Your task to perform on an android device: Go to ESPN.com Image 0: 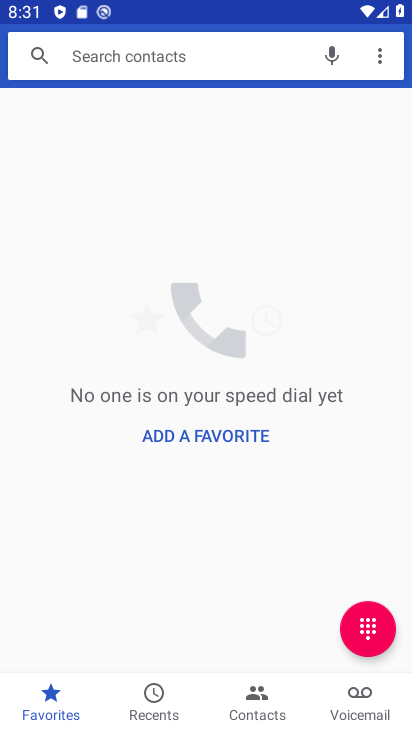
Step 0: press home button
Your task to perform on an android device: Go to ESPN.com Image 1: 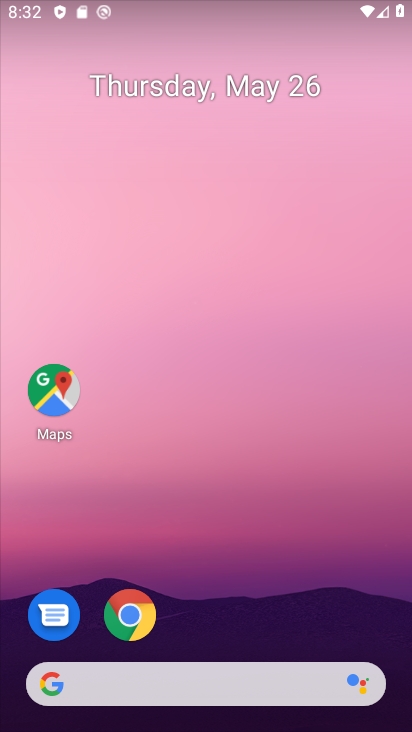
Step 1: click (123, 614)
Your task to perform on an android device: Go to ESPN.com Image 2: 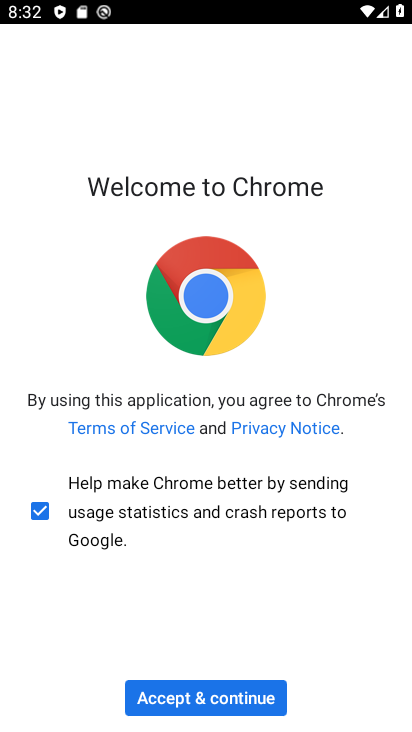
Step 2: click (241, 699)
Your task to perform on an android device: Go to ESPN.com Image 3: 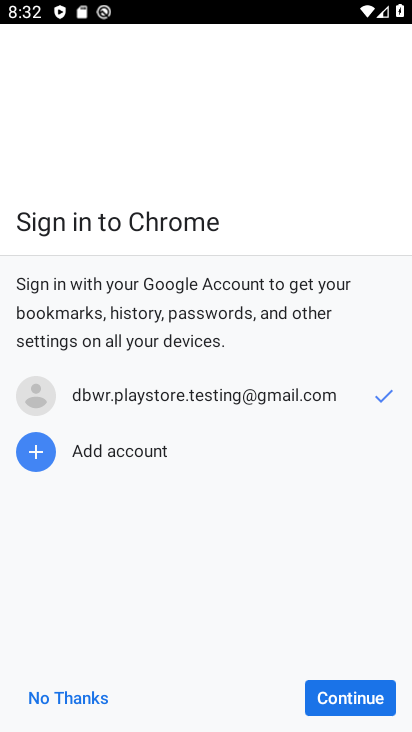
Step 3: click (359, 704)
Your task to perform on an android device: Go to ESPN.com Image 4: 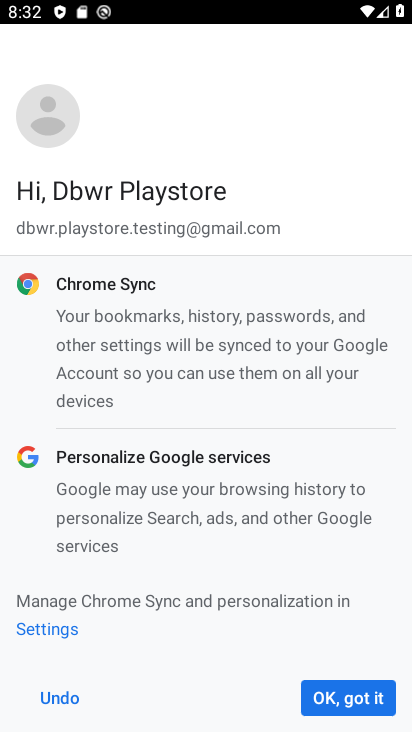
Step 4: click (357, 689)
Your task to perform on an android device: Go to ESPN.com Image 5: 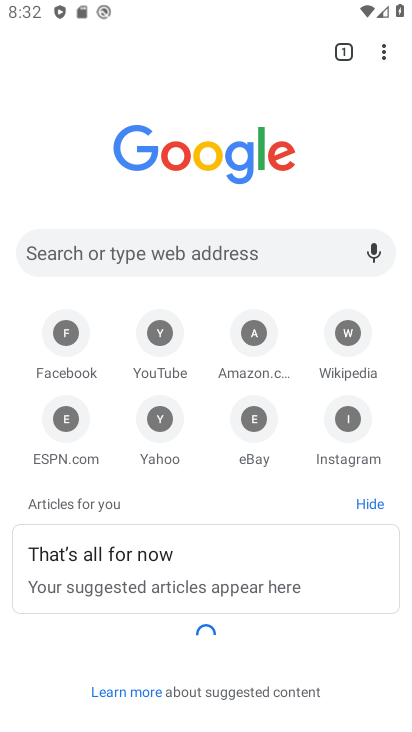
Step 5: click (221, 252)
Your task to perform on an android device: Go to ESPN.com Image 6: 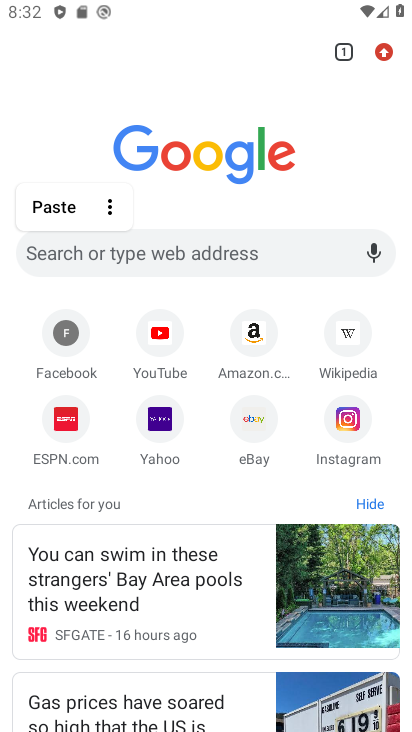
Step 6: type "ESPN.com"
Your task to perform on an android device: Go to ESPN.com Image 7: 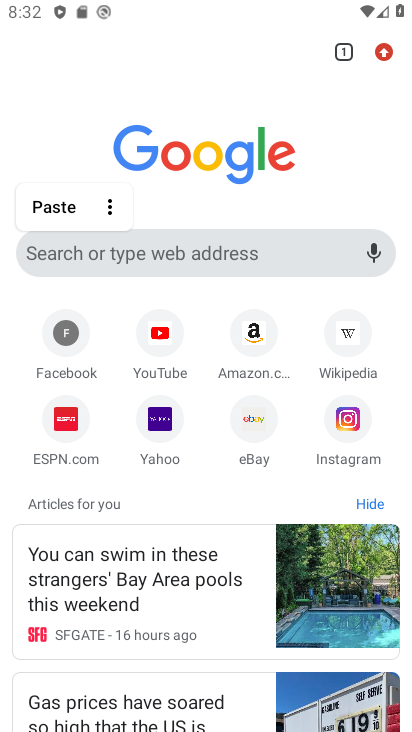
Step 7: click (166, 243)
Your task to perform on an android device: Go to ESPN.com Image 8: 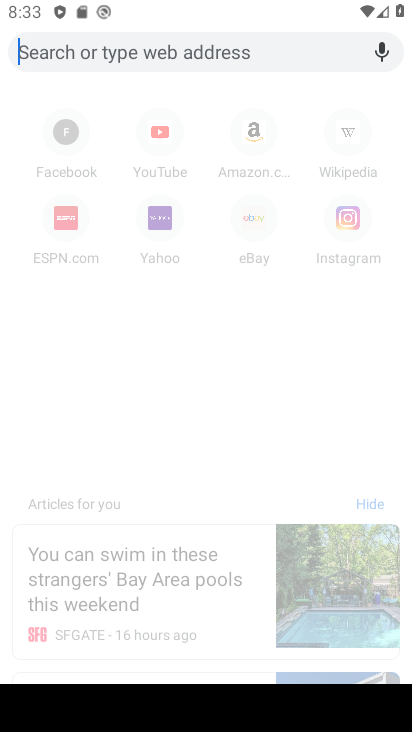
Step 8: type "ESPN.com"
Your task to perform on an android device: Go to ESPN.com Image 9: 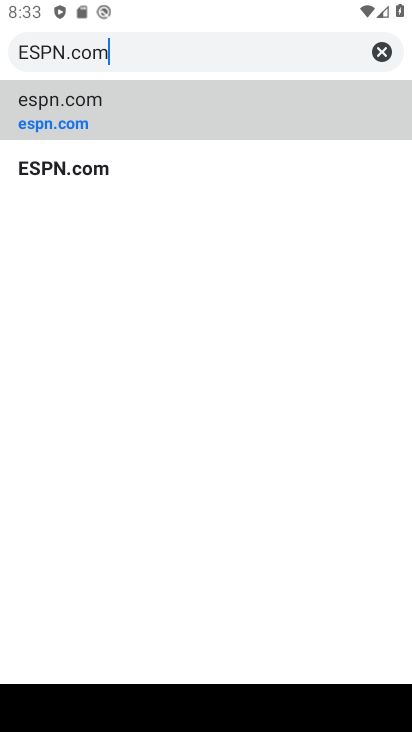
Step 9: click (157, 128)
Your task to perform on an android device: Go to ESPN.com Image 10: 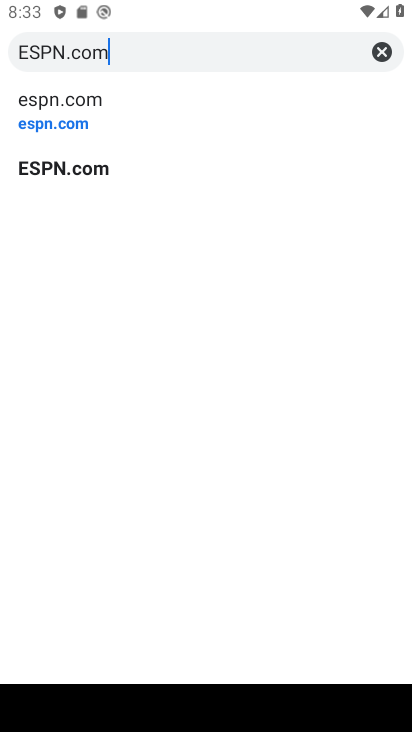
Step 10: click (78, 177)
Your task to perform on an android device: Go to ESPN.com Image 11: 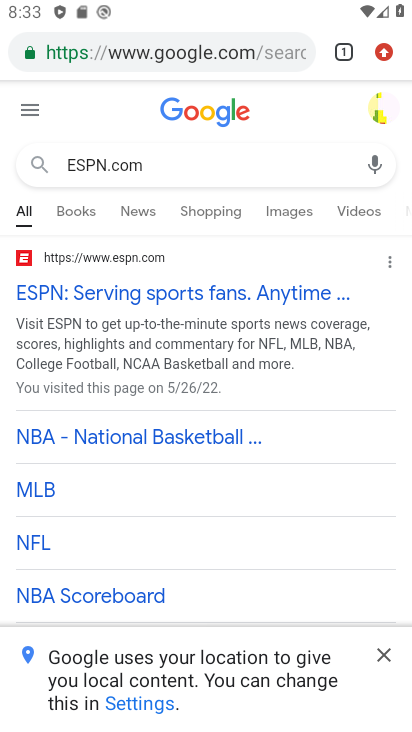
Step 11: task complete